Your task to perform on an android device: change notification settings in the gmail app Image 0: 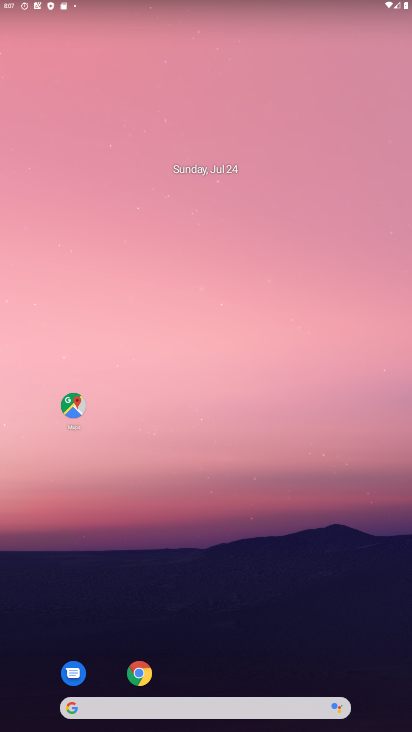
Step 0: drag from (205, 579) to (271, 38)
Your task to perform on an android device: change notification settings in the gmail app Image 1: 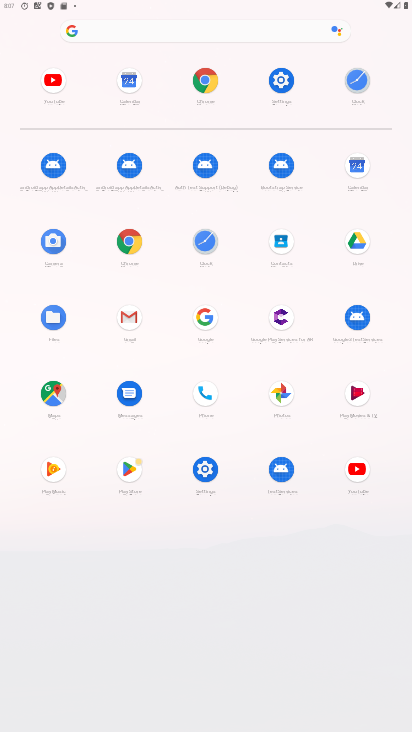
Step 1: click (127, 318)
Your task to perform on an android device: change notification settings in the gmail app Image 2: 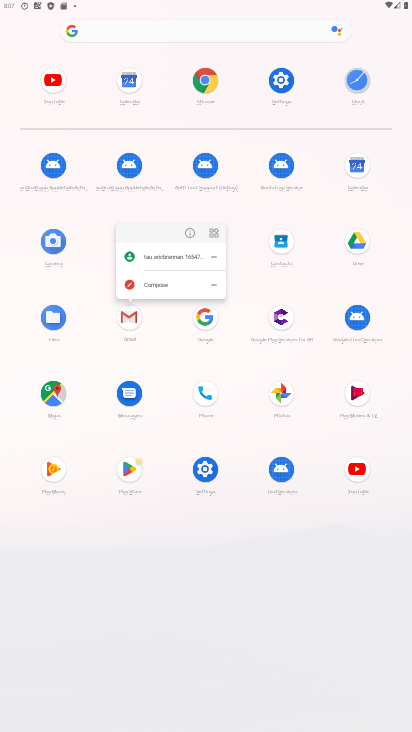
Step 2: click (181, 234)
Your task to perform on an android device: change notification settings in the gmail app Image 3: 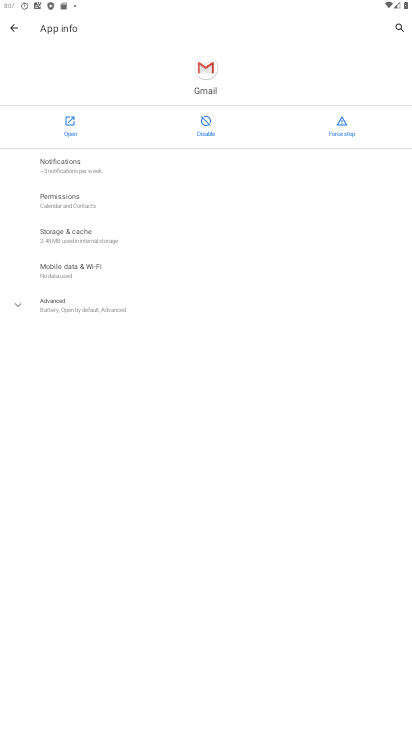
Step 3: drag from (119, 498) to (231, 201)
Your task to perform on an android device: change notification settings in the gmail app Image 4: 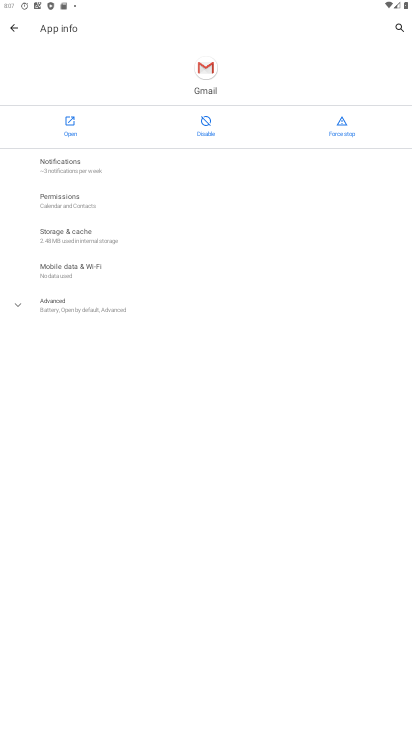
Step 4: click (58, 118)
Your task to perform on an android device: change notification settings in the gmail app Image 5: 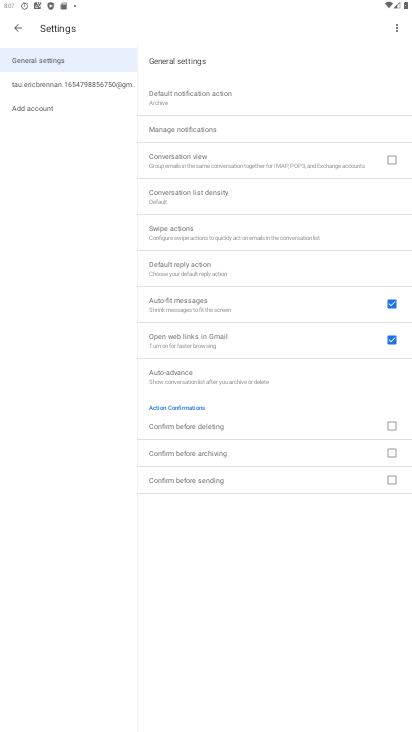
Step 5: drag from (240, 564) to (241, 320)
Your task to perform on an android device: change notification settings in the gmail app Image 6: 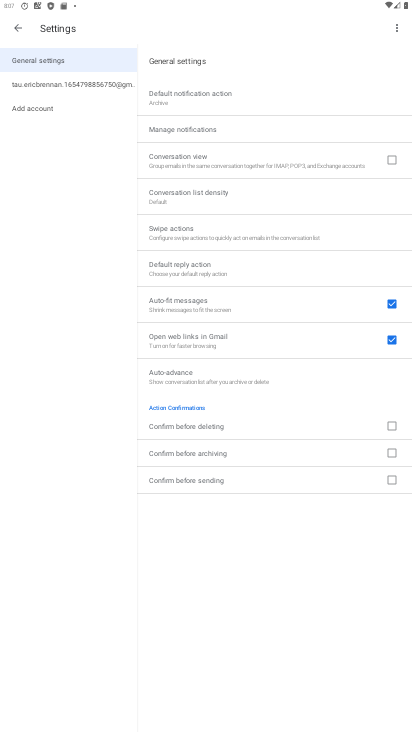
Step 6: drag from (146, 559) to (155, 395)
Your task to perform on an android device: change notification settings in the gmail app Image 7: 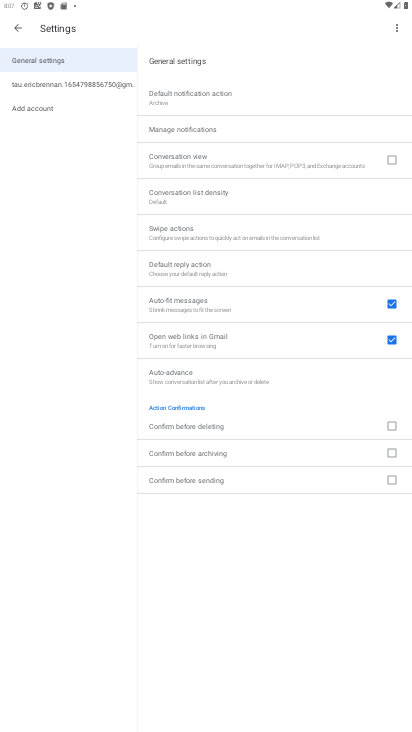
Step 7: click (76, 85)
Your task to perform on an android device: change notification settings in the gmail app Image 8: 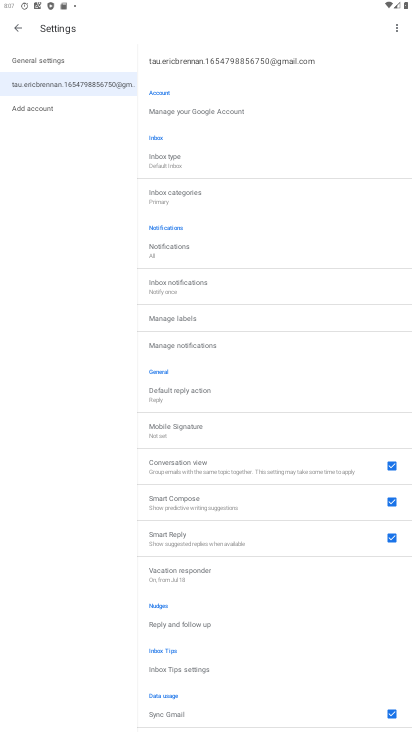
Step 8: click (205, 342)
Your task to perform on an android device: change notification settings in the gmail app Image 9: 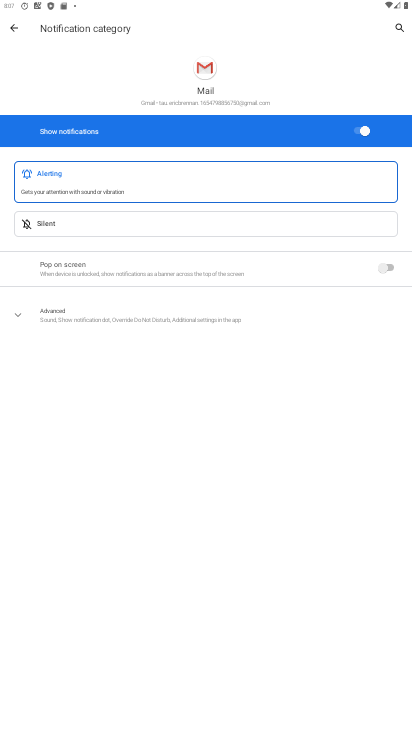
Step 9: drag from (168, 332) to (179, 225)
Your task to perform on an android device: change notification settings in the gmail app Image 10: 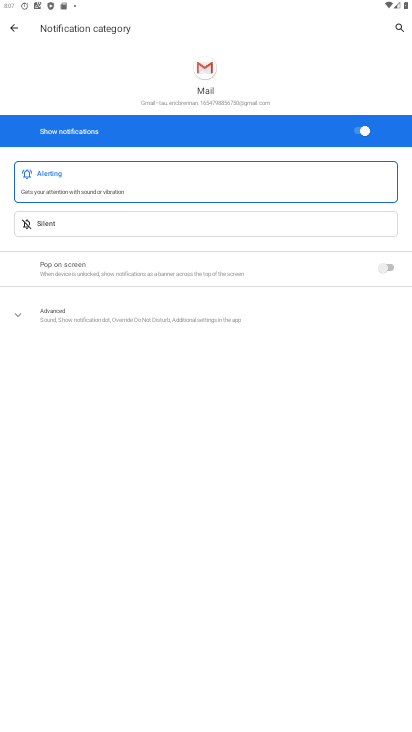
Step 10: drag from (177, 479) to (190, 293)
Your task to perform on an android device: change notification settings in the gmail app Image 11: 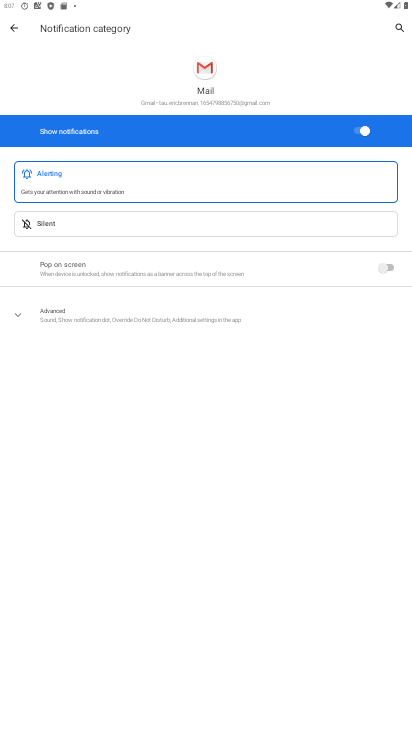
Step 11: click (362, 130)
Your task to perform on an android device: change notification settings in the gmail app Image 12: 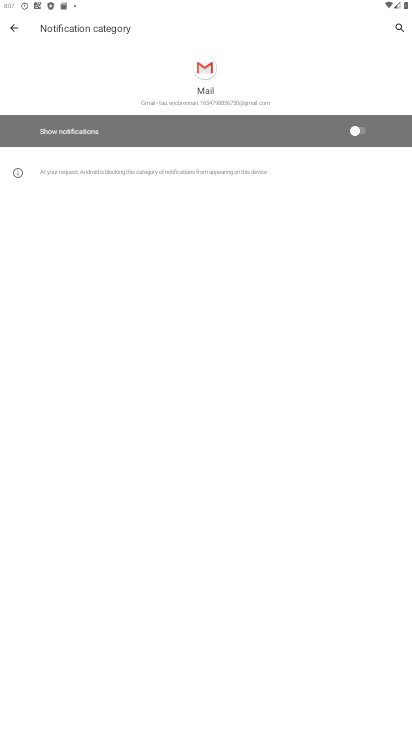
Step 12: task complete